Your task to perform on an android device: Open Chrome and go to settings Image 0: 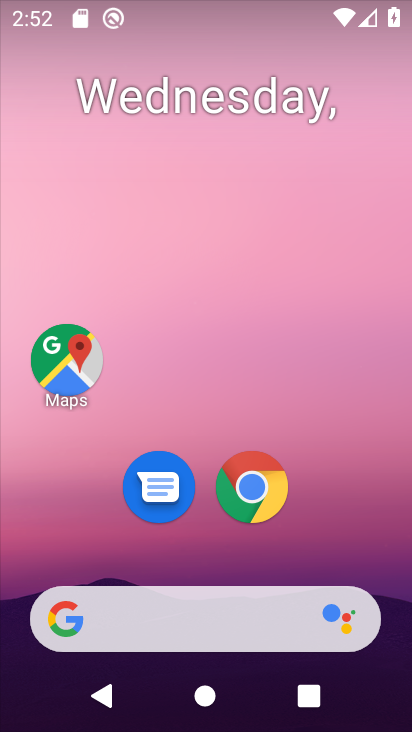
Step 0: click (258, 486)
Your task to perform on an android device: Open Chrome and go to settings Image 1: 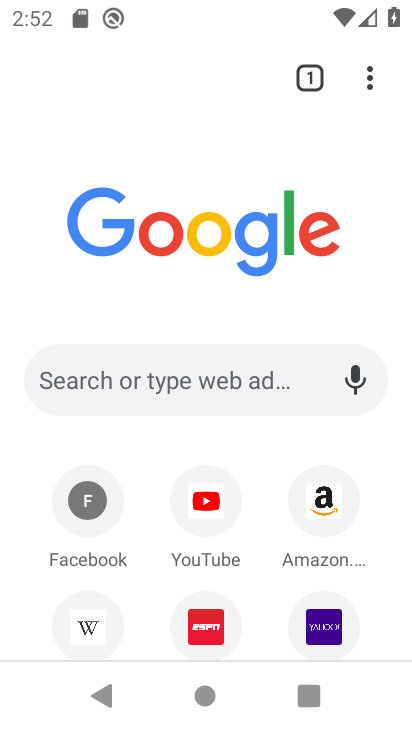
Step 1: click (367, 84)
Your task to perform on an android device: Open Chrome and go to settings Image 2: 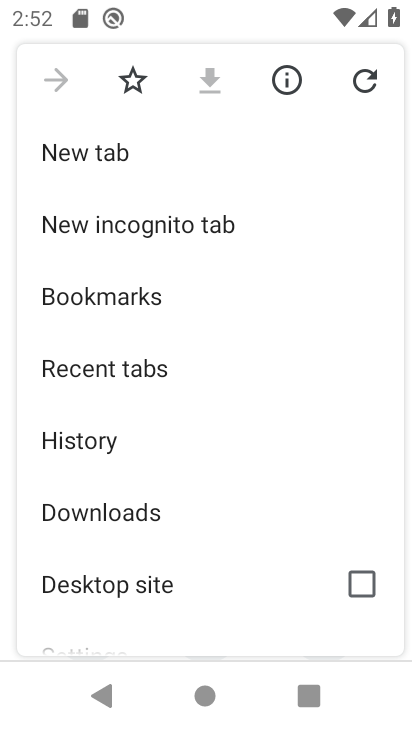
Step 2: click (156, 650)
Your task to perform on an android device: Open Chrome and go to settings Image 3: 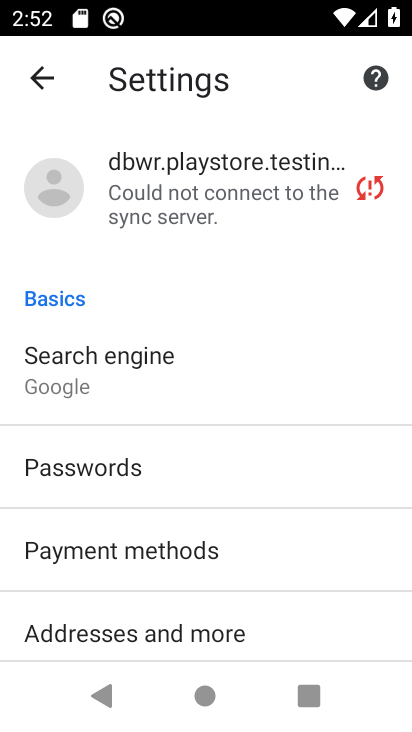
Step 3: task complete